Your task to perform on an android device: move a message to another label in the gmail app Image 0: 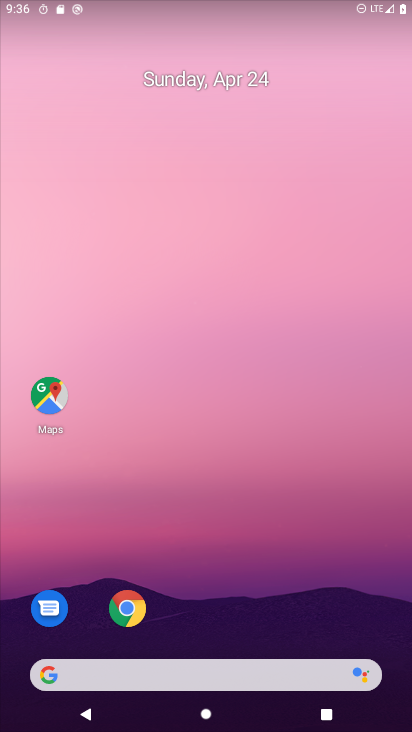
Step 0: drag from (251, 589) to (231, 117)
Your task to perform on an android device: move a message to another label in the gmail app Image 1: 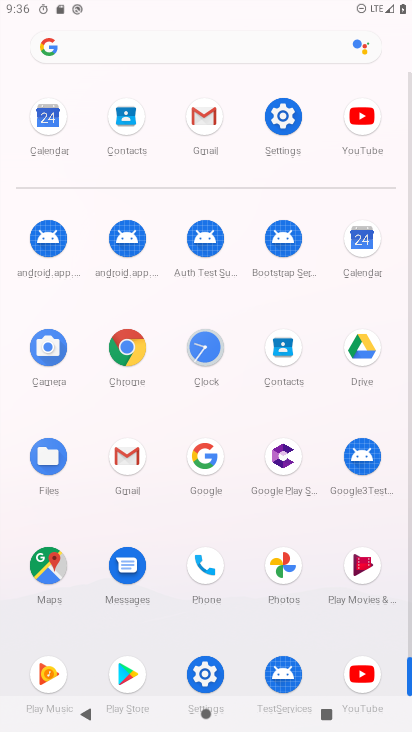
Step 1: click (206, 116)
Your task to perform on an android device: move a message to another label in the gmail app Image 2: 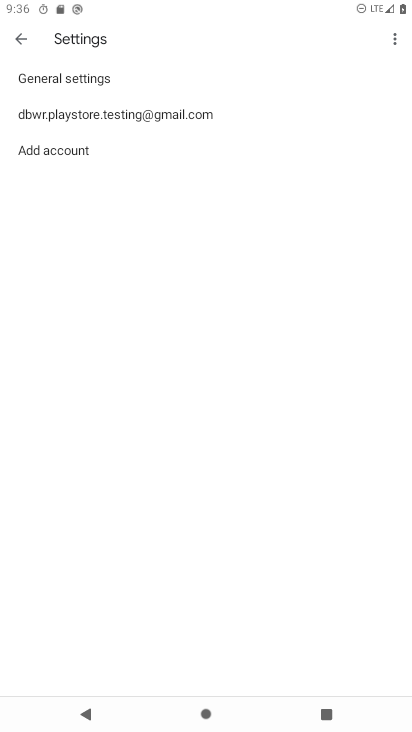
Step 2: click (23, 34)
Your task to perform on an android device: move a message to another label in the gmail app Image 3: 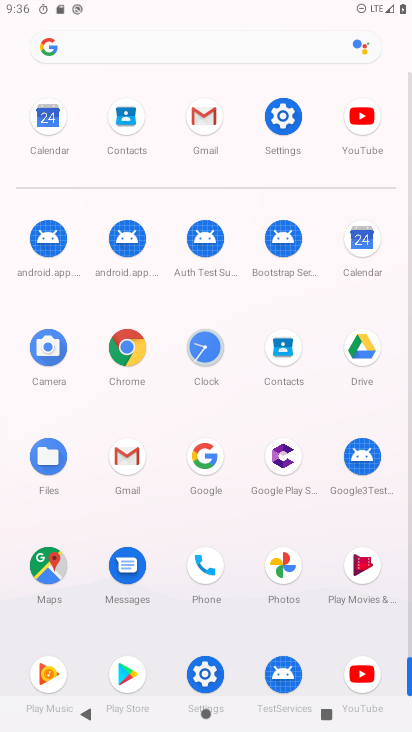
Step 3: click (211, 112)
Your task to perform on an android device: move a message to another label in the gmail app Image 4: 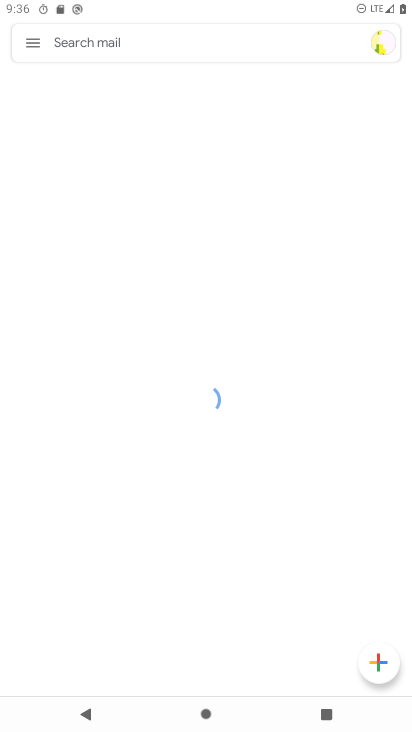
Step 4: click (33, 37)
Your task to perform on an android device: move a message to another label in the gmail app Image 5: 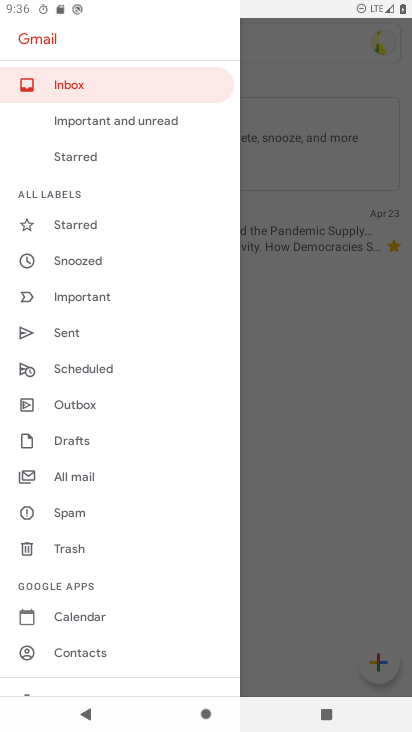
Step 5: click (109, 475)
Your task to perform on an android device: move a message to another label in the gmail app Image 6: 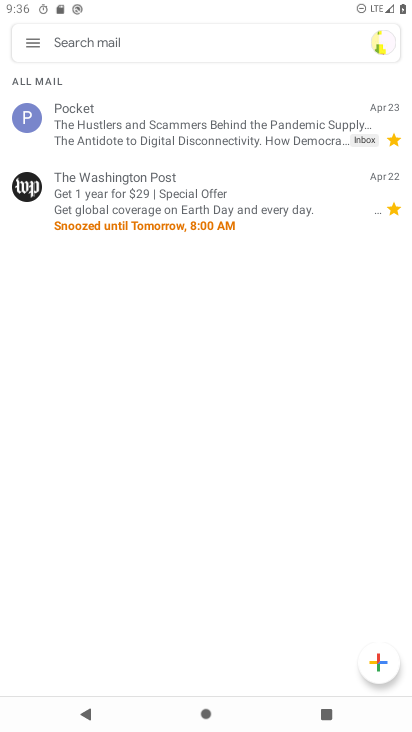
Step 6: click (287, 140)
Your task to perform on an android device: move a message to another label in the gmail app Image 7: 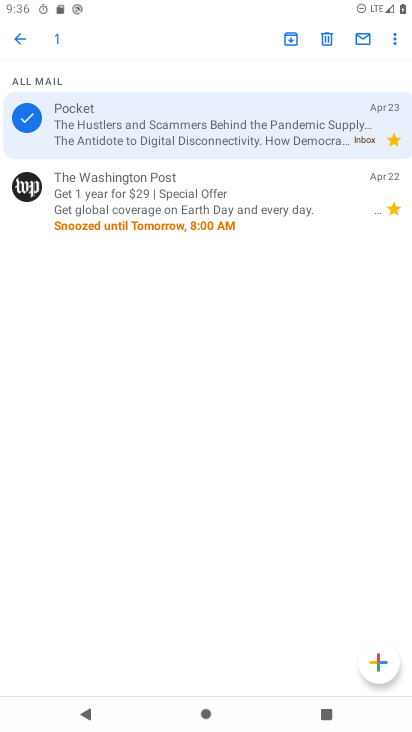
Step 7: click (391, 40)
Your task to perform on an android device: move a message to another label in the gmail app Image 8: 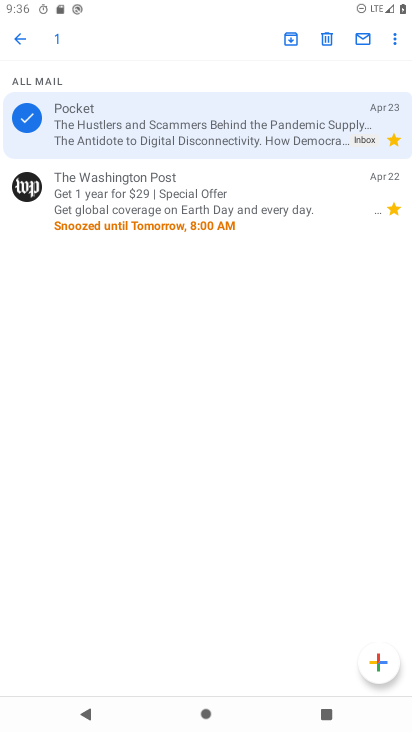
Step 8: click (399, 34)
Your task to perform on an android device: move a message to another label in the gmail app Image 9: 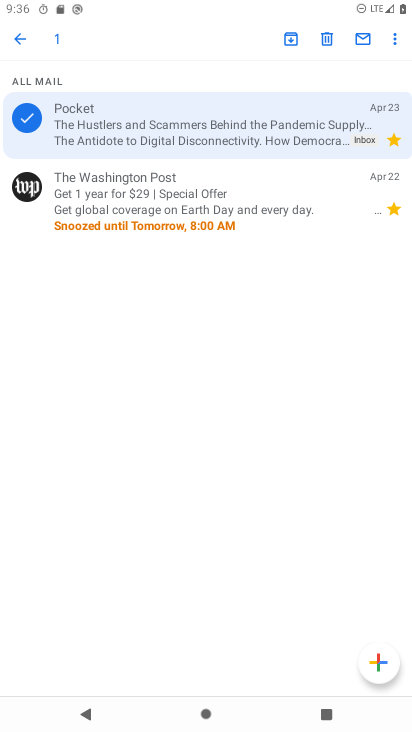
Step 9: click (399, 37)
Your task to perform on an android device: move a message to another label in the gmail app Image 10: 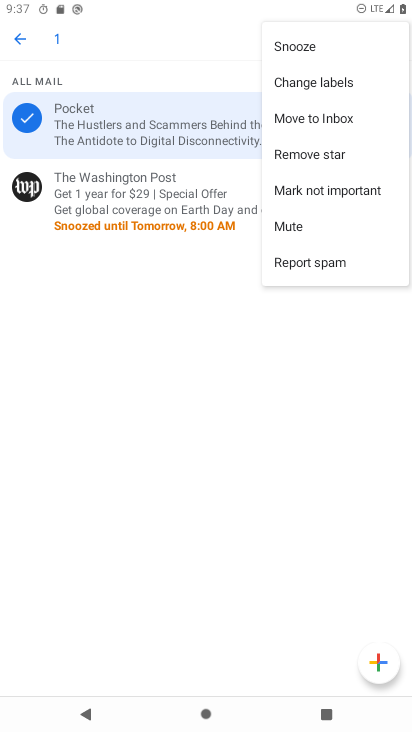
Step 10: click (350, 75)
Your task to perform on an android device: move a message to another label in the gmail app Image 11: 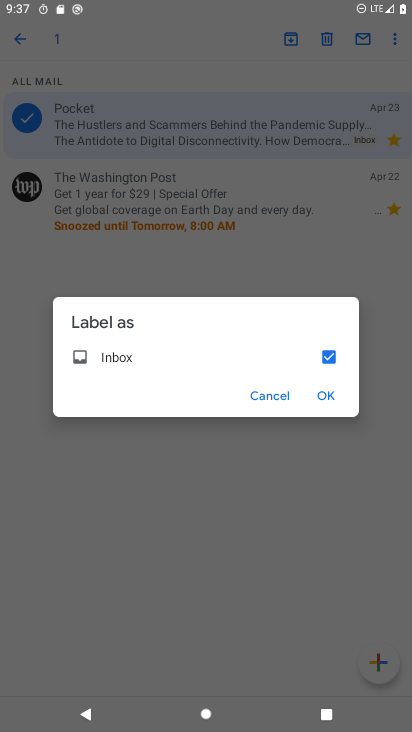
Step 11: click (326, 348)
Your task to perform on an android device: move a message to another label in the gmail app Image 12: 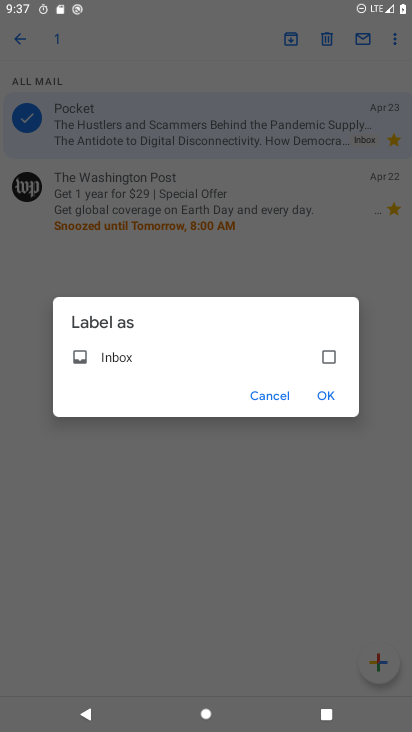
Step 12: click (326, 390)
Your task to perform on an android device: move a message to another label in the gmail app Image 13: 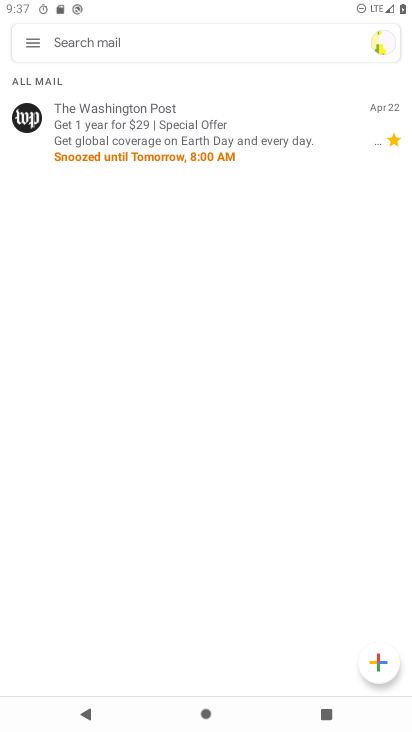
Step 13: task complete